Your task to perform on an android device: Go to wifi settings Image 0: 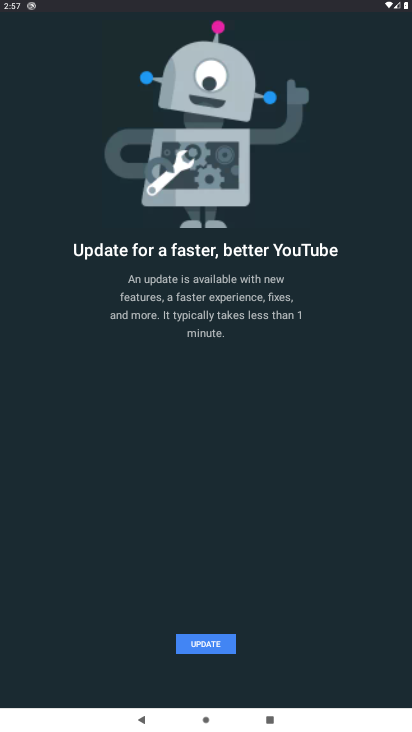
Step 0: press home button
Your task to perform on an android device: Go to wifi settings Image 1: 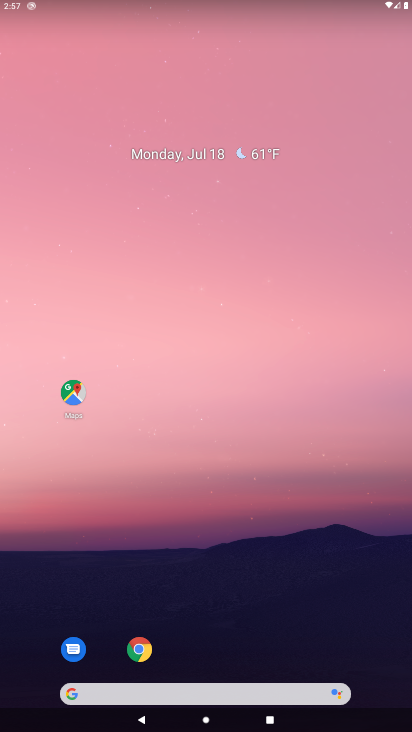
Step 1: drag from (50, 696) to (382, 201)
Your task to perform on an android device: Go to wifi settings Image 2: 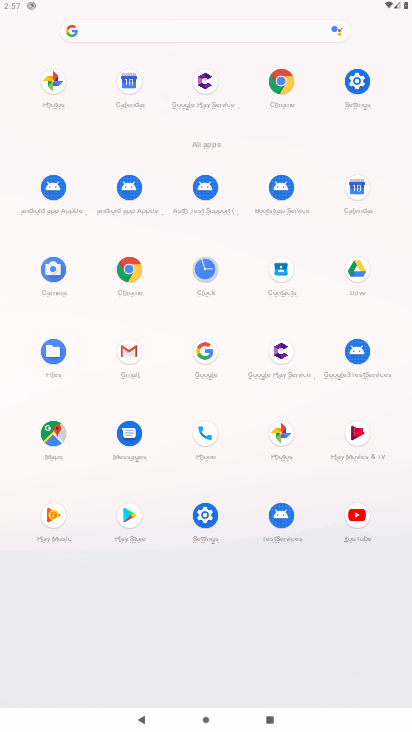
Step 2: click (200, 531)
Your task to perform on an android device: Go to wifi settings Image 3: 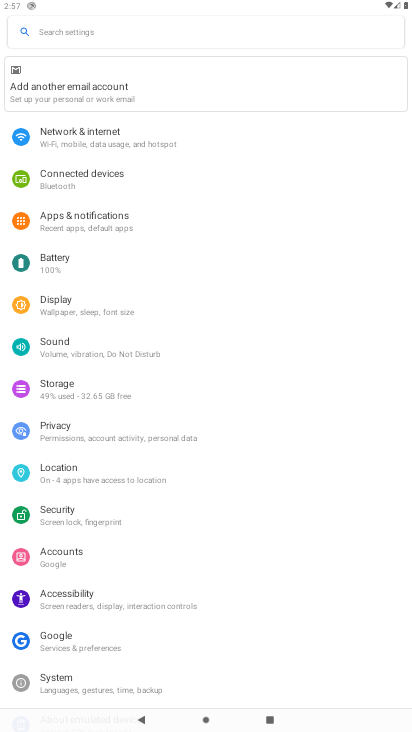
Step 3: click (93, 134)
Your task to perform on an android device: Go to wifi settings Image 4: 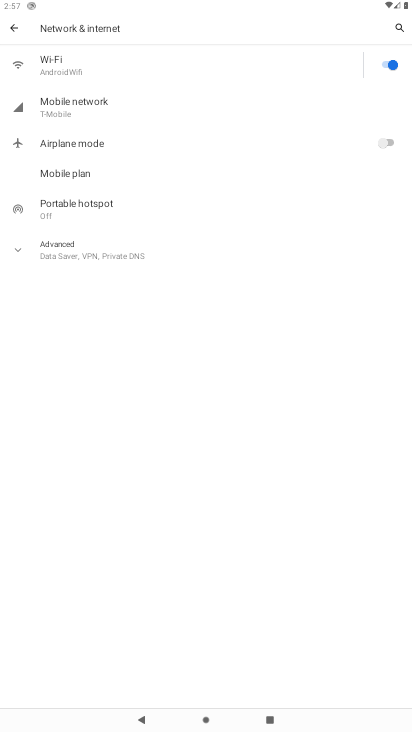
Step 4: task complete